Your task to perform on an android device: Search for seafood restaurants on Google Maps Image 0: 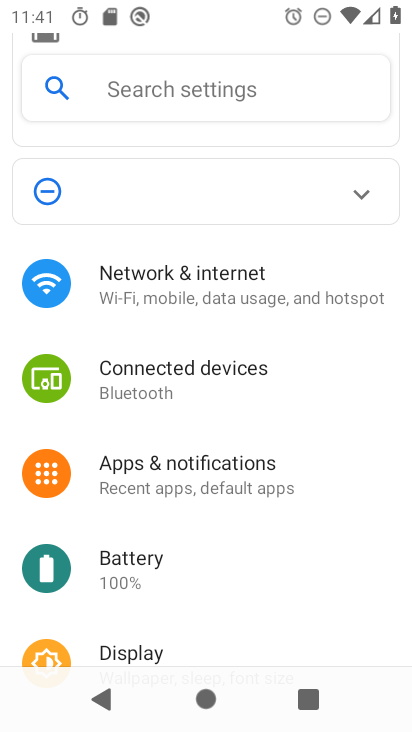
Step 0: press home button
Your task to perform on an android device: Search for seafood restaurants on Google Maps Image 1: 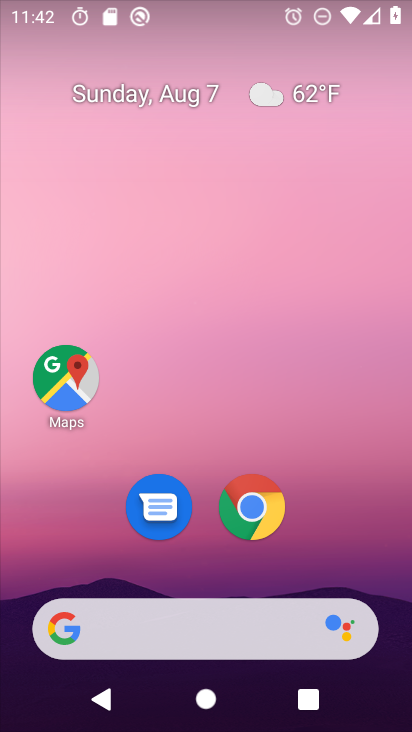
Step 1: drag from (373, 531) to (287, 40)
Your task to perform on an android device: Search for seafood restaurants on Google Maps Image 2: 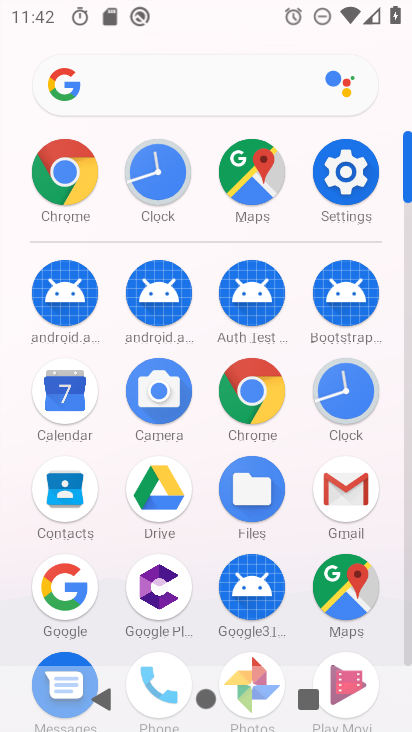
Step 2: click (362, 593)
Your task to perform on an android device: Search for seafood restaurants on Google Maps Image 3: 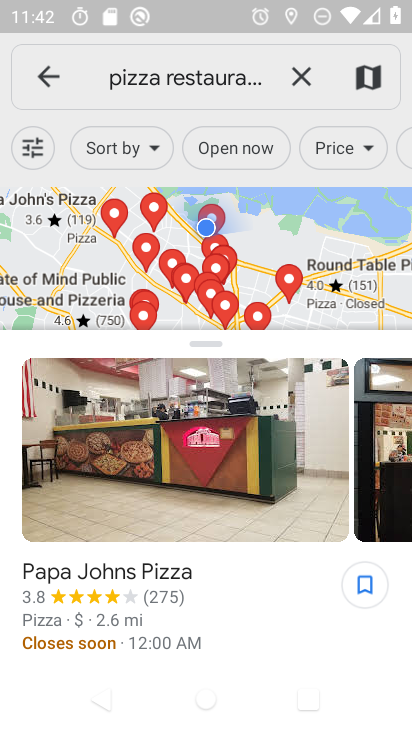
Step 3: click (168, 48)
Your task to perform on an android device: Search for seafood restaurants on Google Maps Image 4: 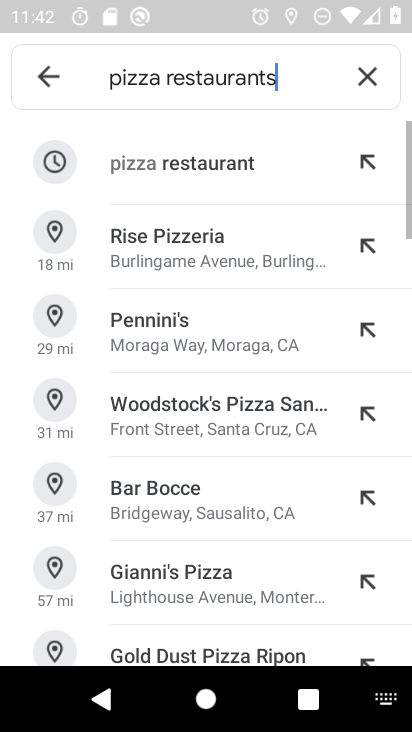
Step 4: click (362, 77)
Your task to perform on an android device: Search for seafood restaurants on Google Maps Image 5: 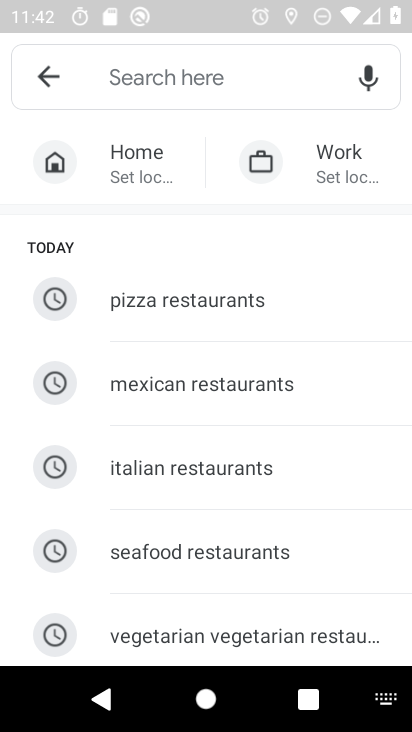
Step 5: type "seafood restaurants"
Your task to perform on an android device: Search for seafood restaurants on Google Maps Image 6: 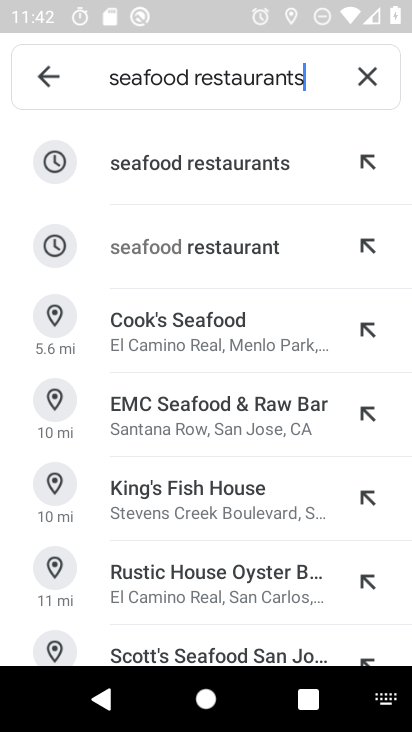
Step 6: type " "
Your task to perform on an android device: Search for seafood restaurants on Google Maps Image 7: 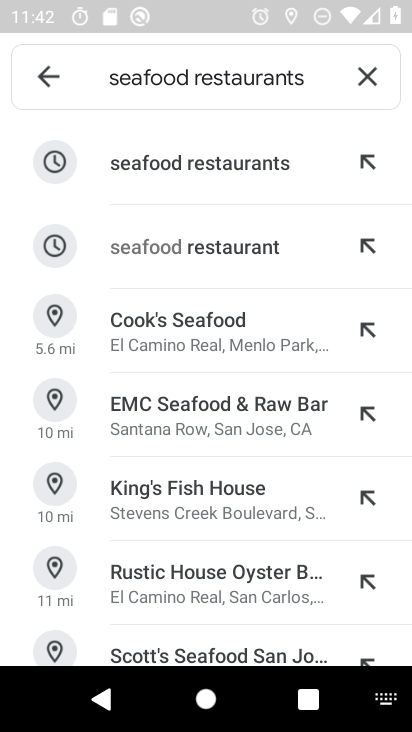
Step 7: click (253, 152)
Your task to perform on an android device: Search for seafood restaurants on Google Maps Image 8: 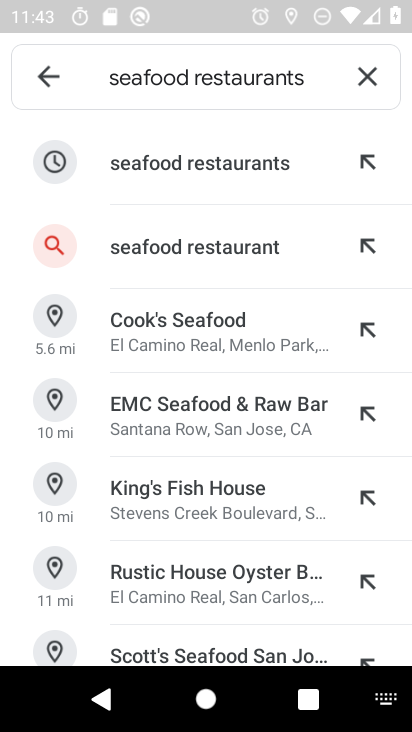
Step 8: click (274, 167)
Your task to perform on an android device: Search for seafood restaurants on Google Maps Image 9: 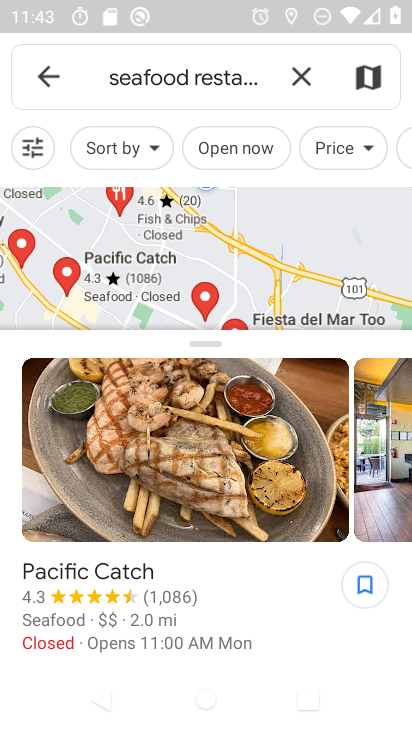
Step 9: task complete